Your task to perform on an android device: When is my next appointment? Image 0: 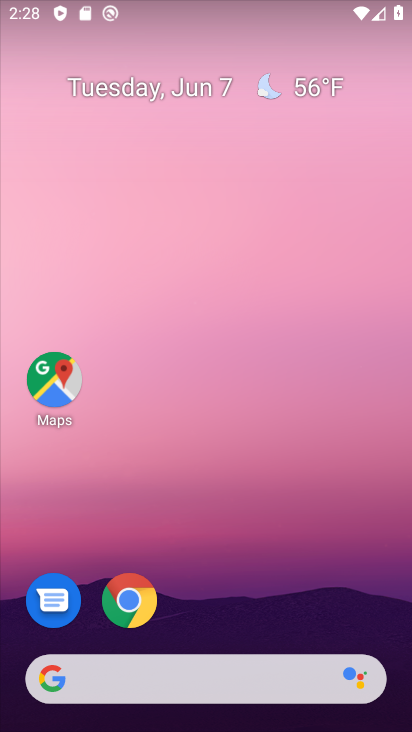
Step 0: drag from (395, 649) to (352, 76)
Your task to perform on an android device: When is my next appointment? Image 1: 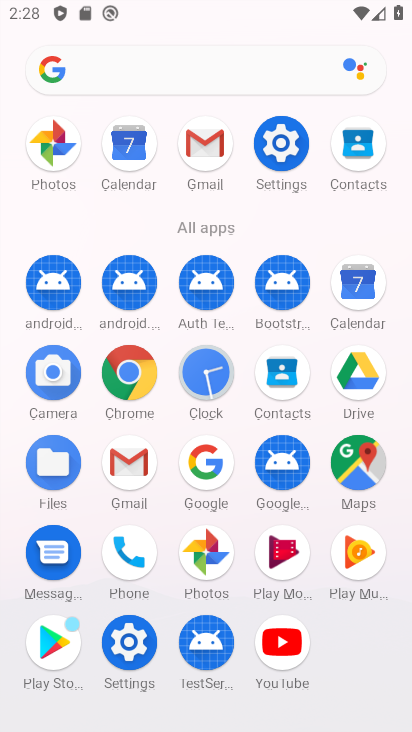
Step 1: click (268, 150)
Your task to perform on an android device: When is my next appointment? Image 2: 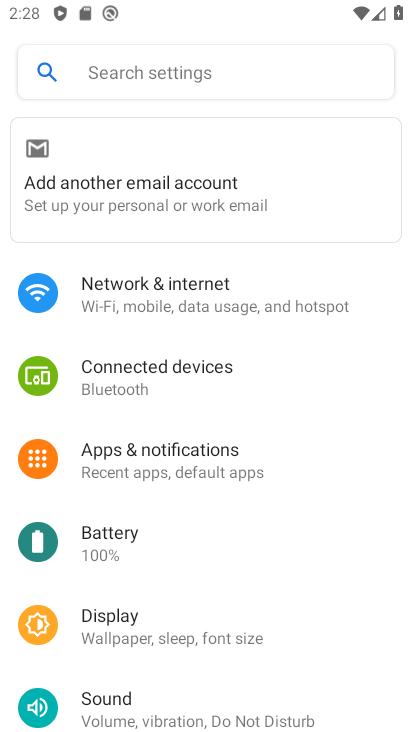
Step 2: press home button
Your task to perform on an android device: When is my next appointment? Image 3: 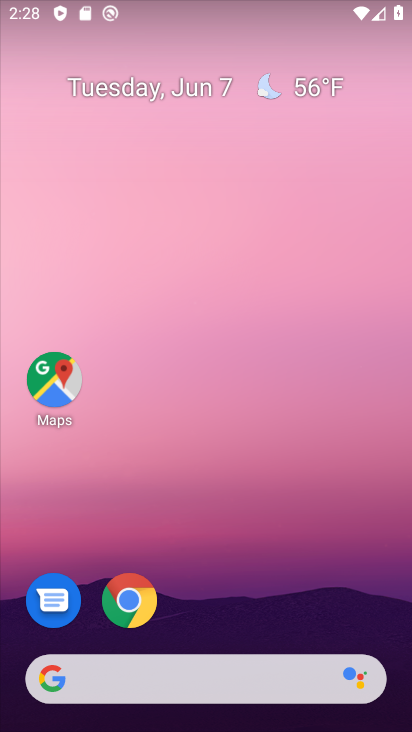
Step 3: drag from (401, 692) to (333, 27)
Your task to perform on an android device: When is my next appointment? Image 4: 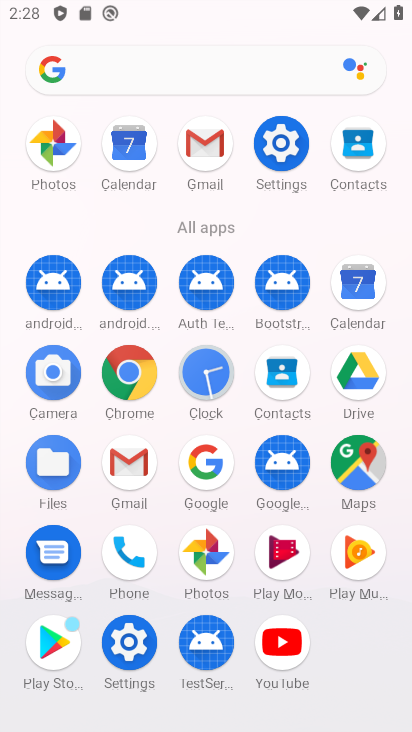
Step 4: click (363, 270)
Your task to perform on an android device: When is my next appointment? Image 5: 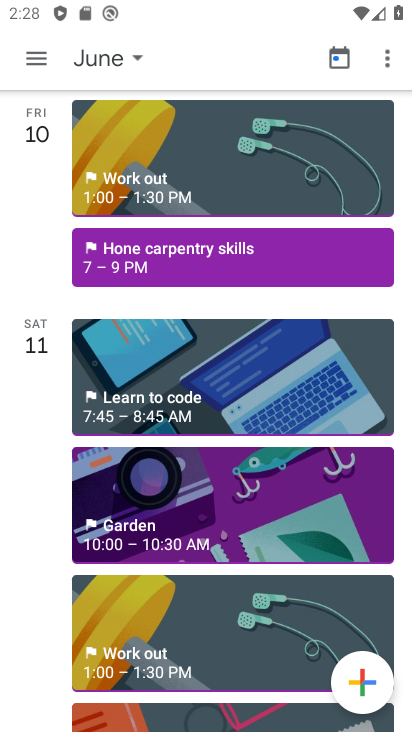
Step 5: click (136, 53)
Your task to perform on an android device: When is my next appointment? Image 6: 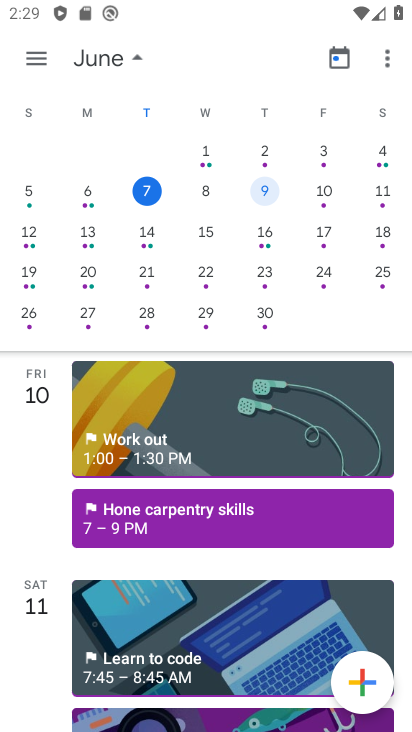
Step 6: task complete